Your task to perform on an android device: clear history in the chrome app Image 0: 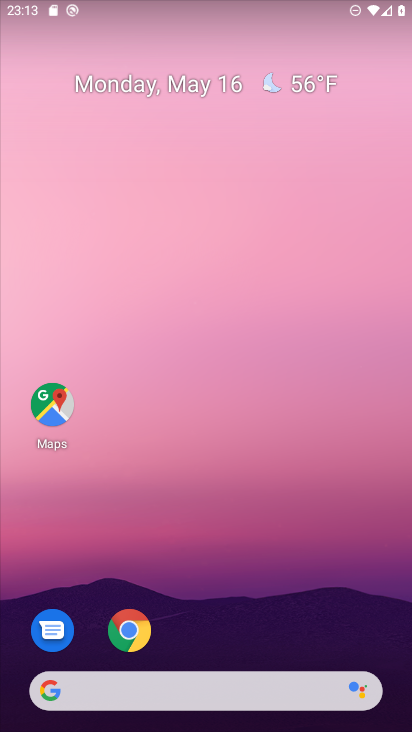
Step 0: click (125, 632)
Your task to perform on an android device: clear history in the chrome app Image 1: 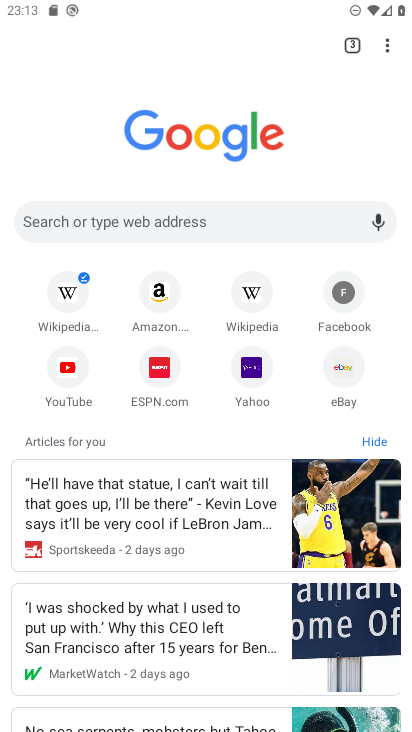
Step 1: click (387, 45)
Your task to perform on an android device: clear history in the chrome app Image 2: 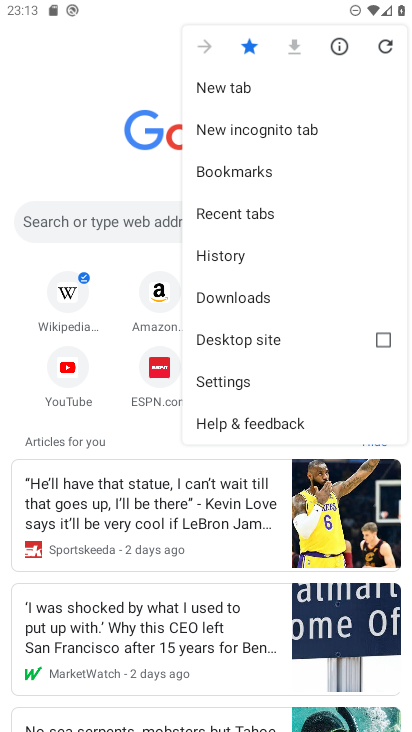
Step 2: click (230, 252)
Your task to perform on an android device: clear history in the chrome app Image 3: 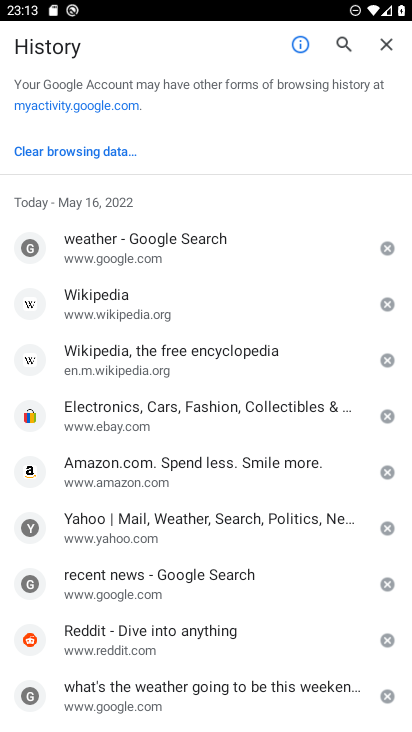
Step 3: click (100, 151)
Your task to perform on an android device: clear history in the chrome app Image 4: 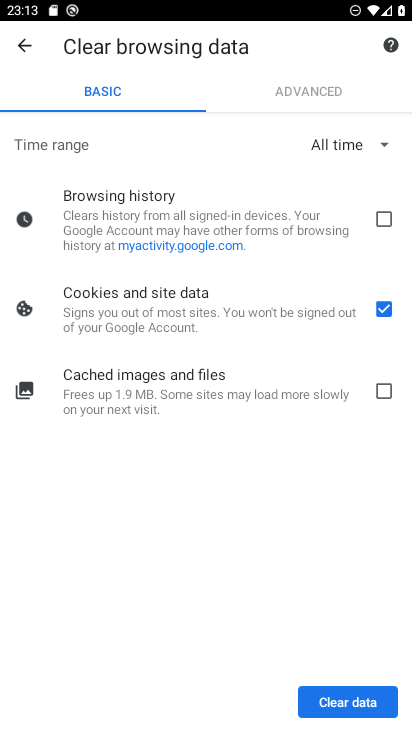
Step 4: click (389, 215)
Your task to perform on an android device: clear history in the chrome app Image 5: 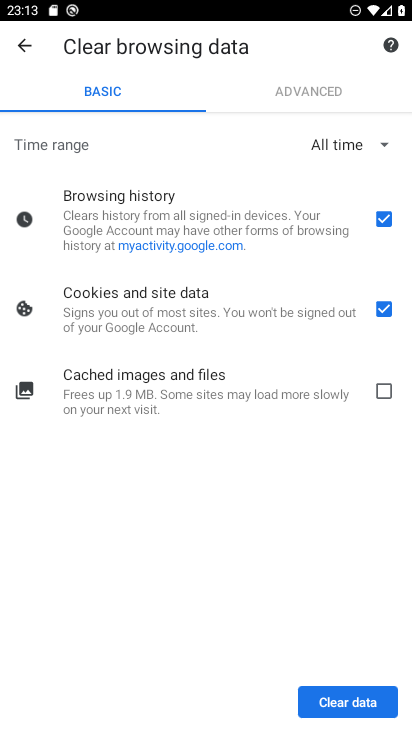
Step 5: click (384, 304)
Your task to perform on an android device: clear history in the chrome app Image 6: 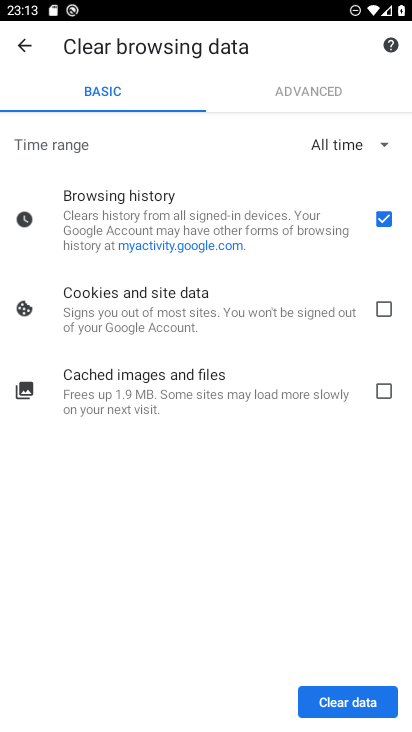
Step 6: click (368, 694)
Your task to perform on an android device: clear history in the chrome app Image 7: 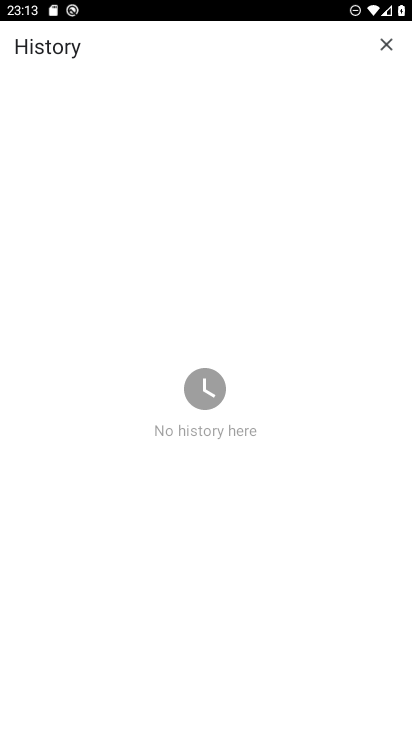
Step 7: task complete